Your task to perform on an android device: What's the weather going to be this weekend? Image 0: 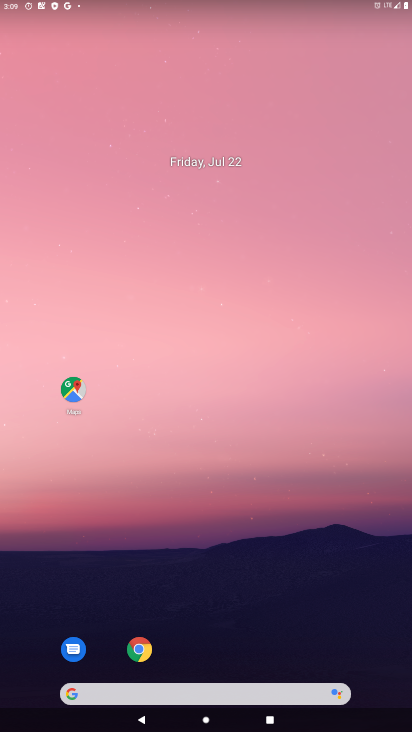
Step 0: drag from (263, 596) to (313, 94)
Your task to perform on an android device: What's the weather going to be this weekend? Image 1: 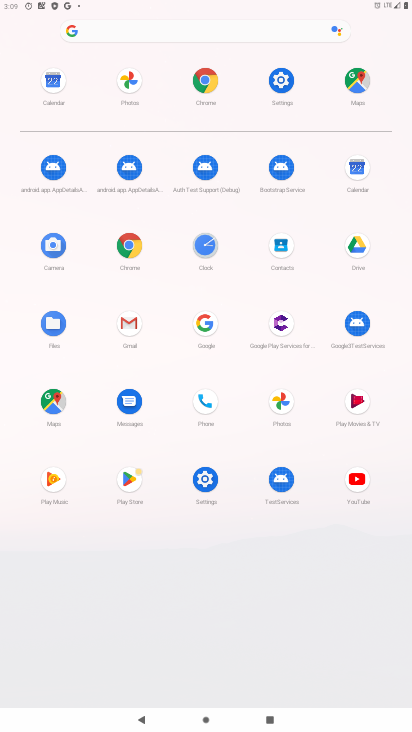
Step 1: click (206, 70)
Your task to perform on an android device: What's the weather going to be this weekend? Image 2: 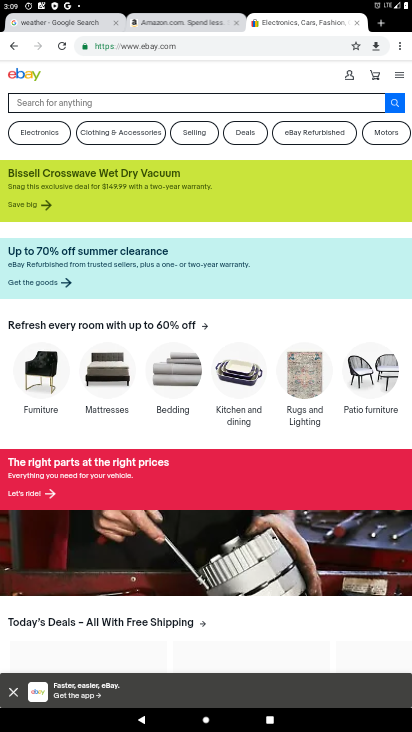
Step 2: click (213, 45)
Your task to perform on an android device: What's the weather going to be this weekend? Image 3: 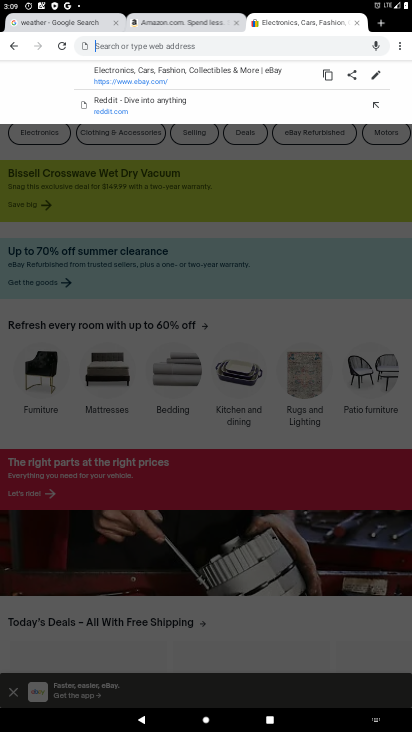
Step 3: type "weather"
Your task to perform on an android device: What's the weather going to be this weekend? Image 4: 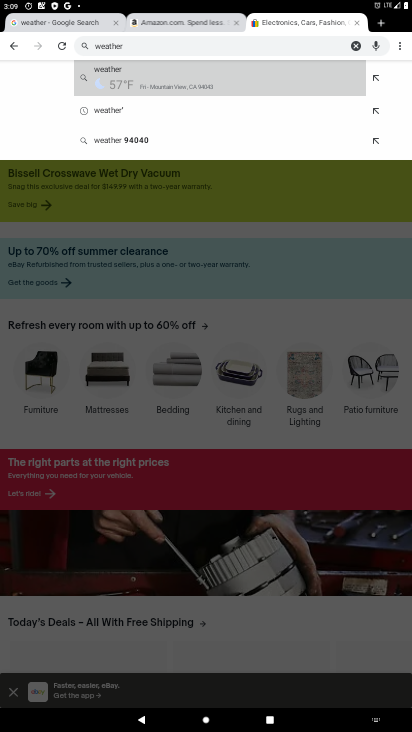
Step 4: click (134, 74)
Your task to perform on an android device: What's the weather going to be this weekend? Image 5: 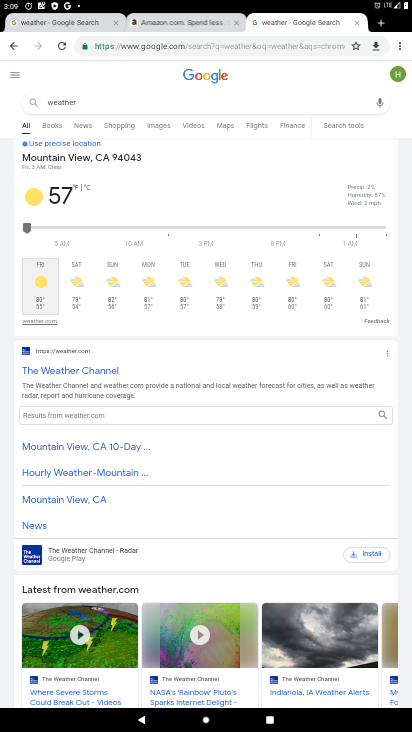
Step 5: click (118, 274)
Your task to perform on an android device: What's the weather going to be this weekend? Image 6: 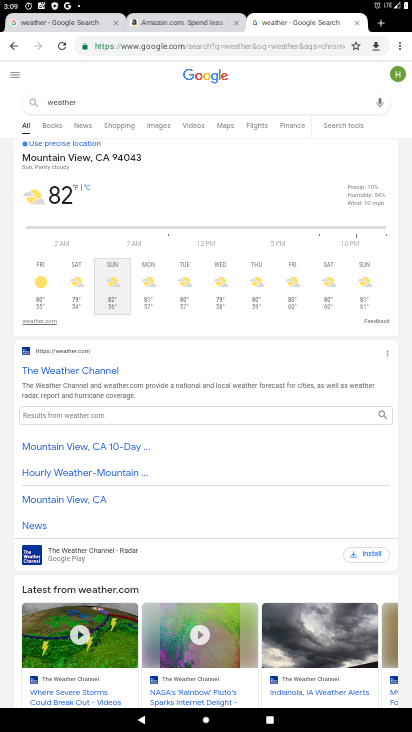
Step 6: task complete